Your task to perform on an android device: toggle pop-ups in chrome Image 0: 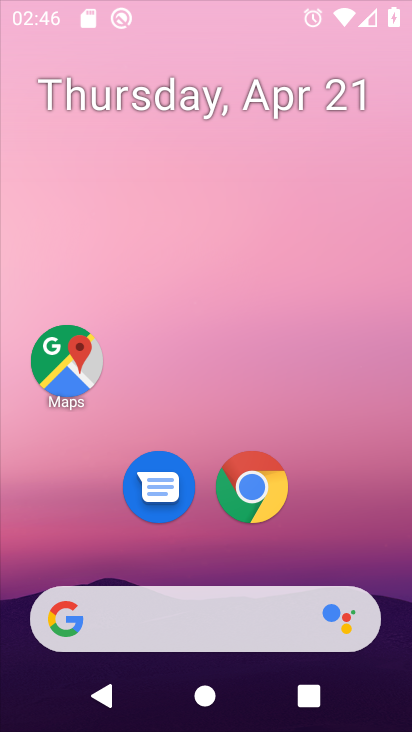
Step 0: click (410, 23)
Your task to perform on an android device: toggle pop-ups in chrome Image 1: 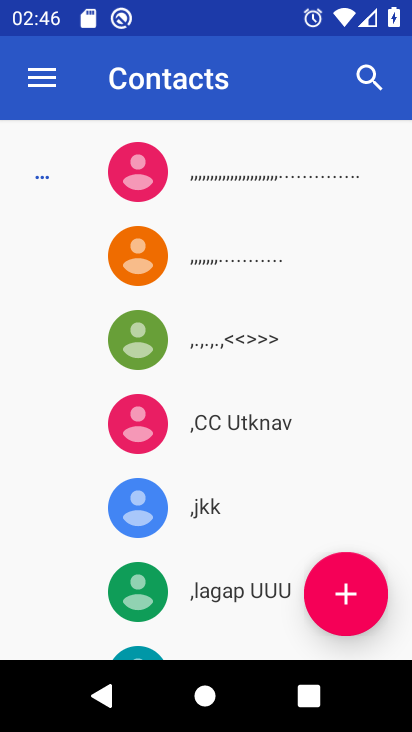
Step 1: press home button
Your task to perform on an android device: toggle pop-ups in chrome Image 2: 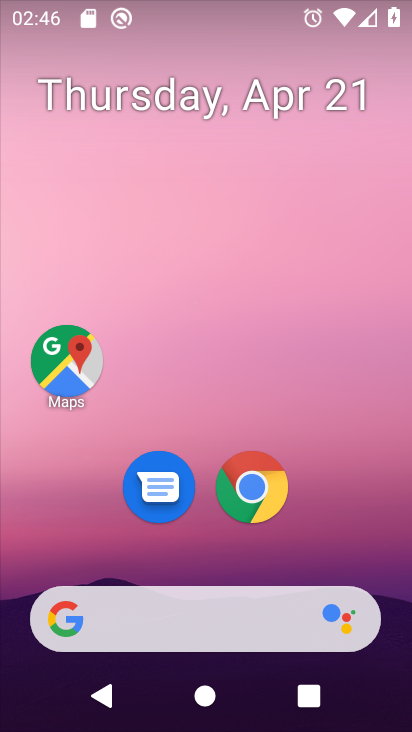
Step 2: click (243, 480)
Your task to perform on an android device: toggle pop-ups in chrome Image 3: 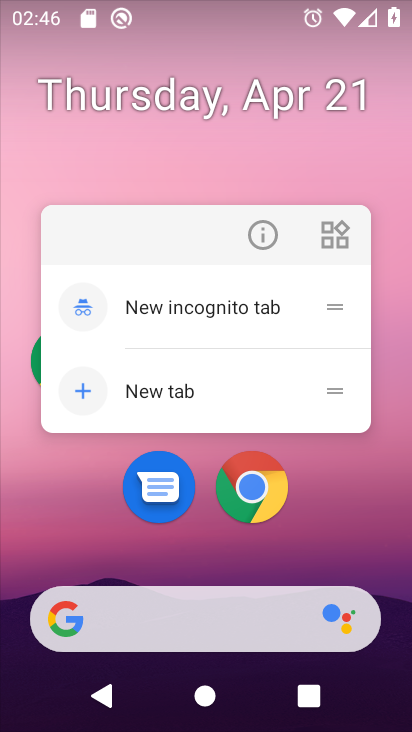
Step 3: click (251, 236)
Your task to perform on an android device: toggle pop-ups in chrome Image 4: 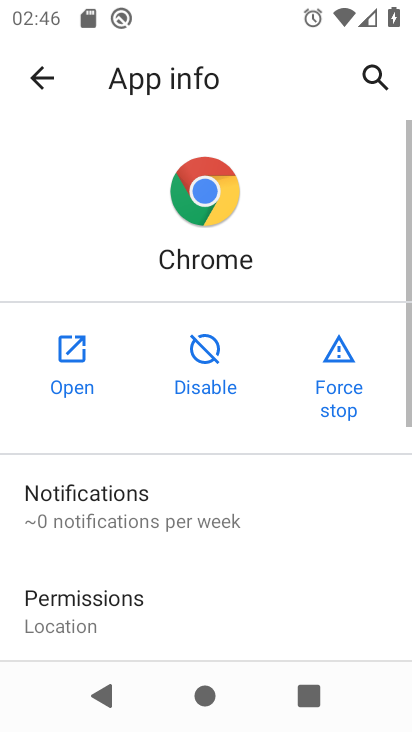
Step 4: click (76, 345)
Your task to perform on an android device: toggle pop-ups in chrome Image 5: 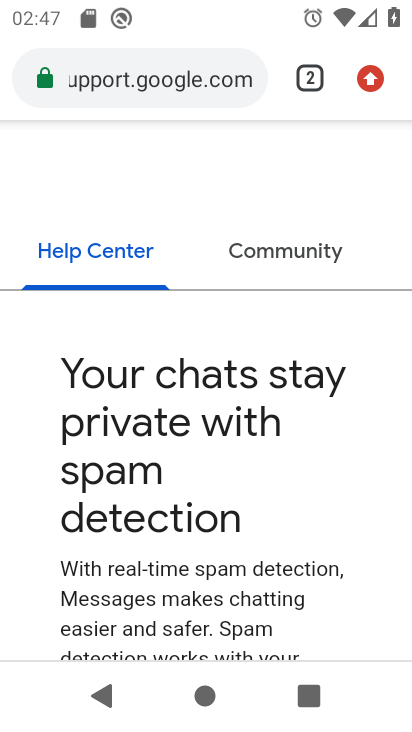
Step 5: drag from (203, 573) to (283, 64)
Your task to perform on an android device: toggle pop-ups in chrome Image 6: 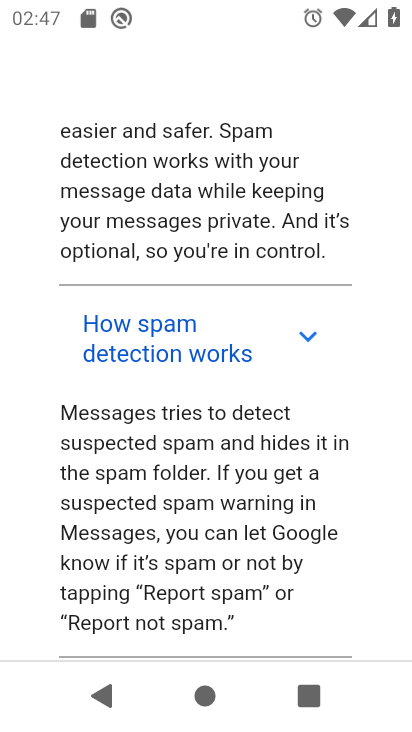
Step 6: drag from (160, 569) to (297, 208)
Your task to perform on an android device: toggle pop-ups in chrome Image 7: 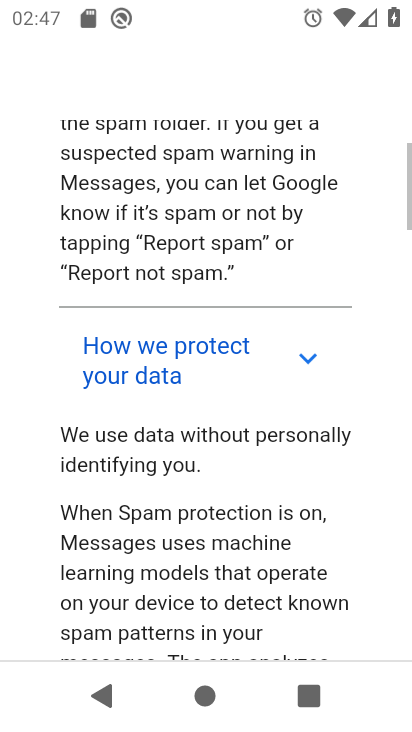
Step 7: drag from (271, 280) to (252, 564)
Your task to perform on an android device: toggle pop-ups in chrome Image 8: 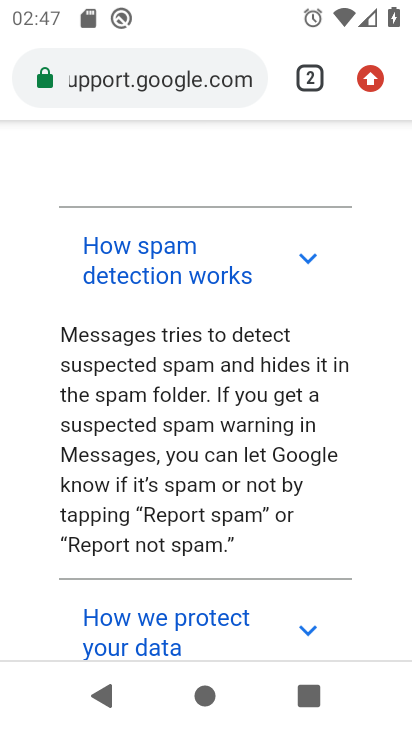
Step 8: drag from (218, 262) to (268, 664)
Your task to perform on an android device: toggle pop-ups in chrome Image 9: 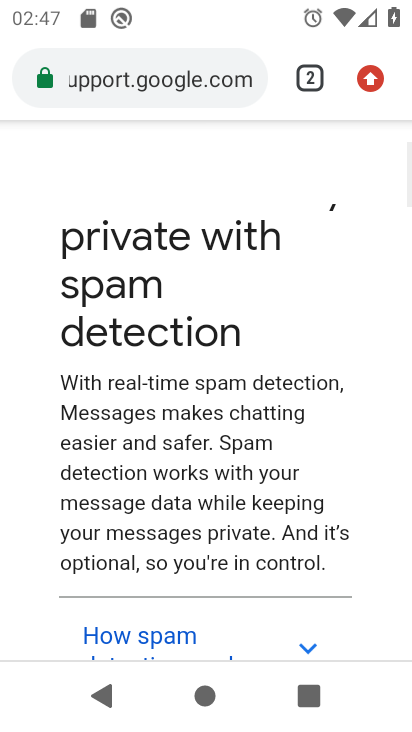
Step 9: drag from (373, 70) to (158, 535)
Your task to perform on an android device: toggle pop-ups in chrome Image 10: 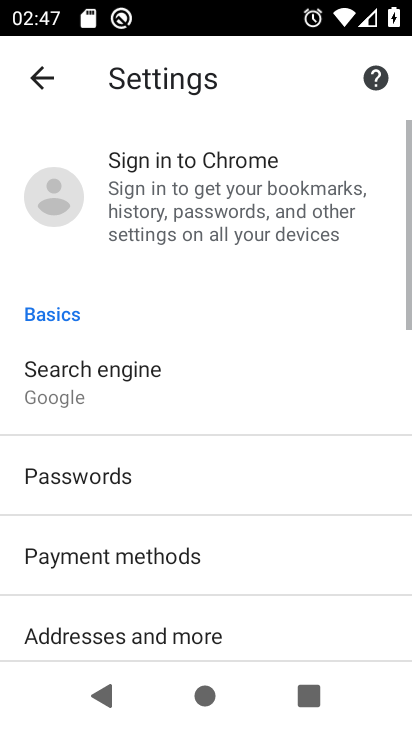
Step 10: drag from (171, 547) to (345, 39)
Your task to perform on an android device: toggle pop-ups in chrome Image 11: 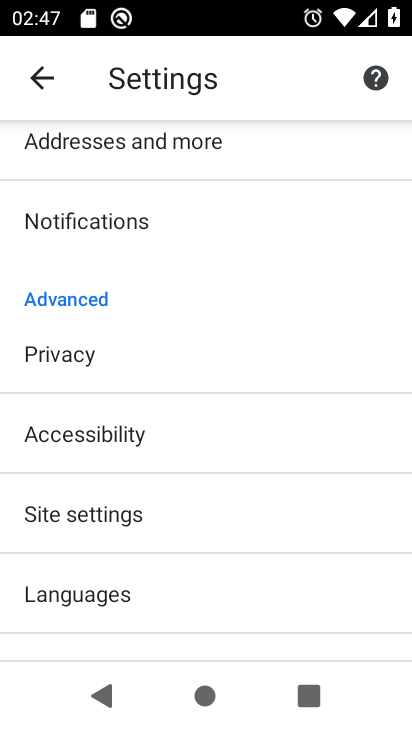
Step 11: click (177, 509)
Your task to perform on an android device: toggle pop-ups in chrome Image 12: 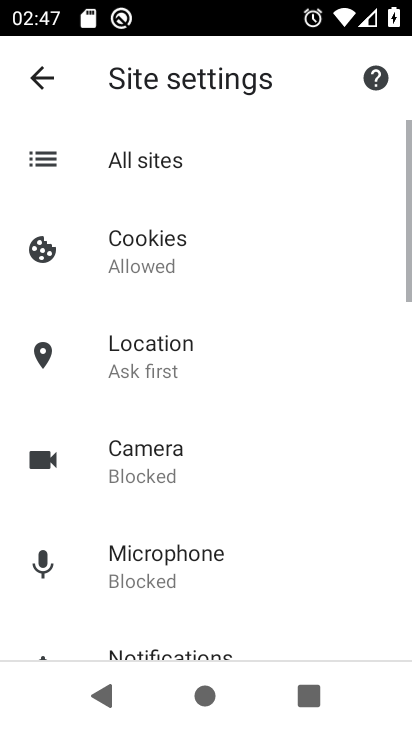
Step 12: drag from (176, 509) to (322, 34)
Your task to perform on an android device: toggle pop-ups in chrome Image 13: 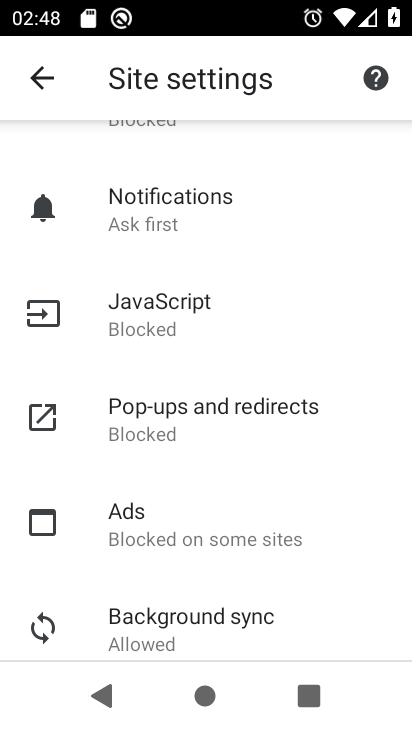
Step 13: click (207, 418)
Your task to perform on an android device: toggle pop-ups in chrome Image 14: 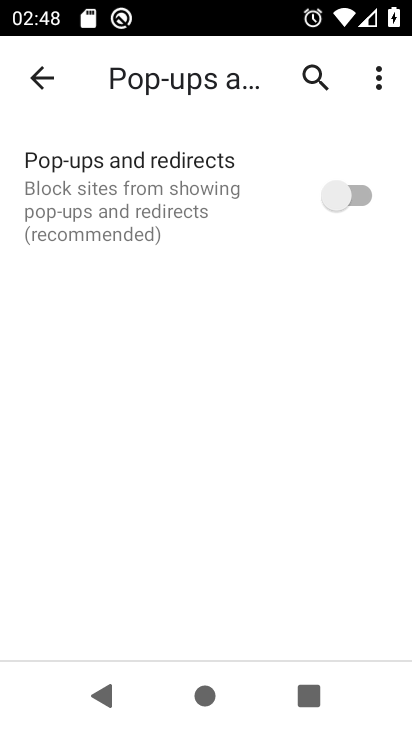
Step 14: drag from (259, 559) to (264, 230)
Your task to perform on an android device: toggle pop-ups in chrome Image 15: 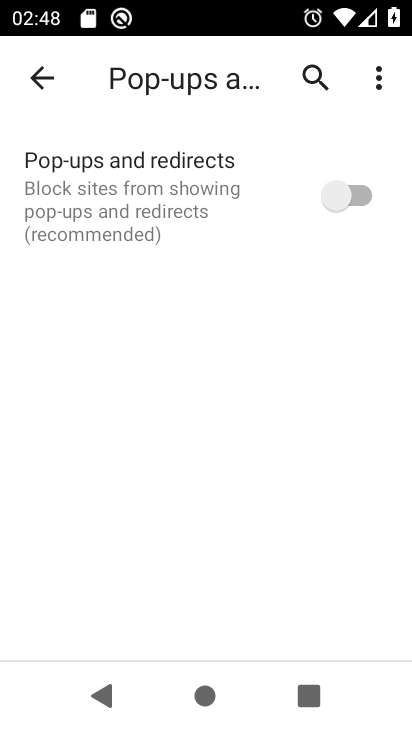
Step 15: click (196, 204)
Your task to perform on an android device: toggle pop-ups in chrome Image 16: 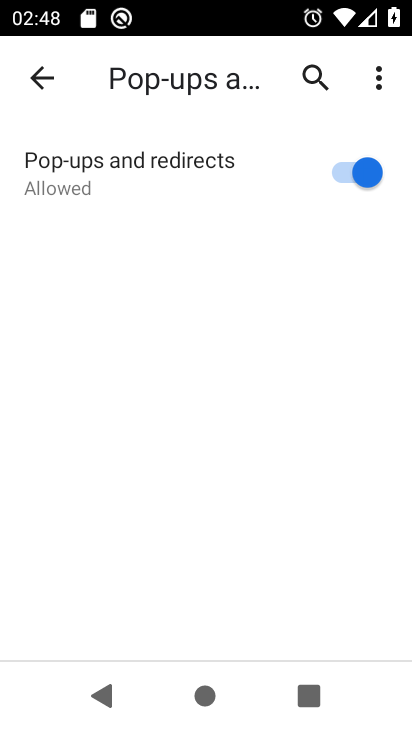
Step 16: task complete